Your task to perform on an android device: open a bookmark in the chrome app Image 0: 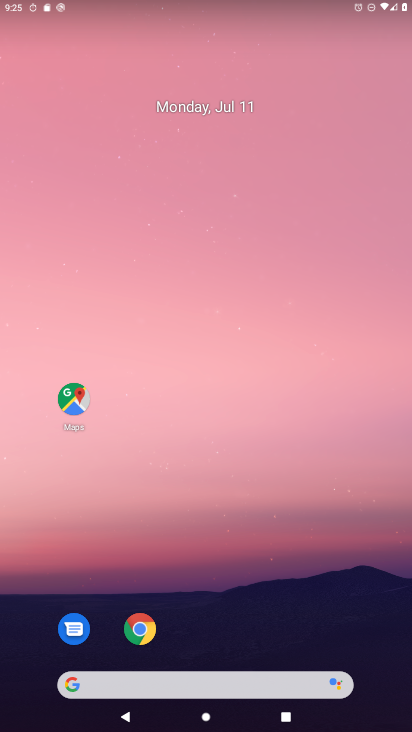
Step 0: click (140, 634)
Your task to perform on an android device: open a bookmark in the chrome app Image 1: 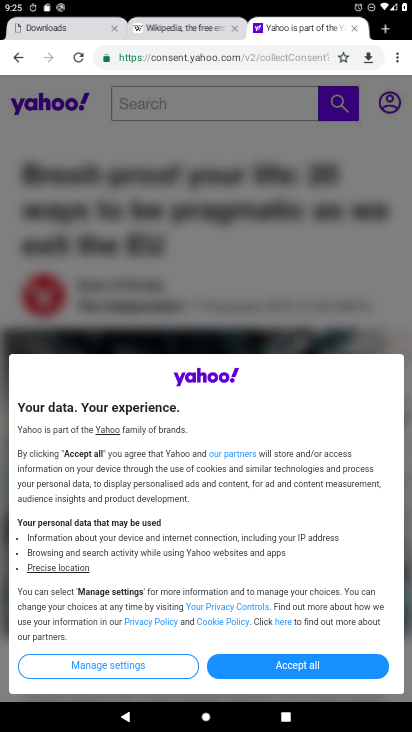
Step 1: click (393, 61)
Your task to perform on an android device: open a bookmark in the chrome app Image 2: 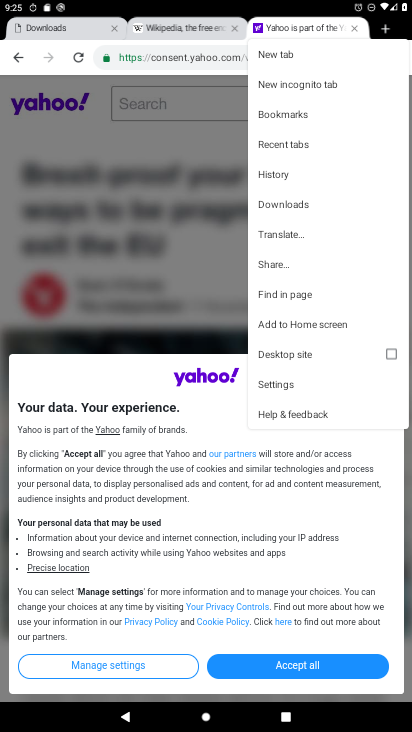
Step 2: click (293, 114)
Your task to perform on an android device: open a bookmark in the chrome app Image 3: 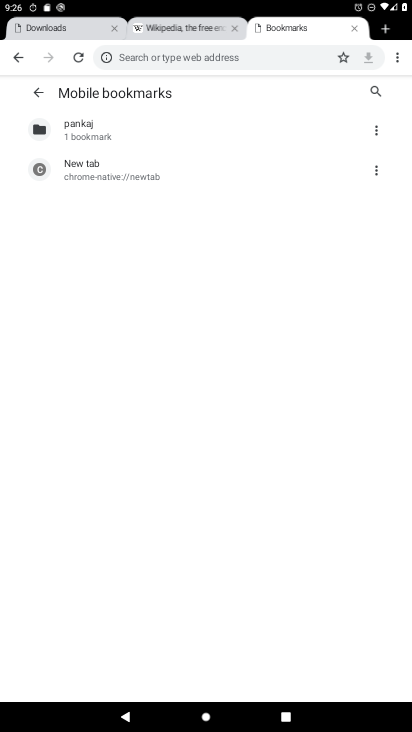
Step 3: click (392, 54)
Your task to perform on an android device: open a bookmark in the chrome app Image 4: 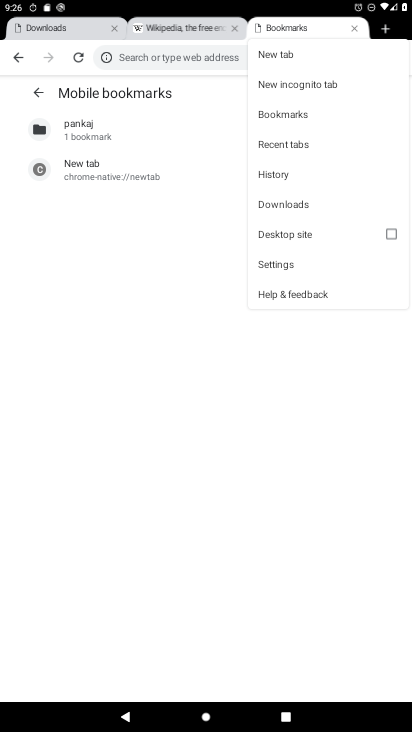
Step 4: click (285, 112)
Your task to perform on an android device: open a bookmark in the chrome app Image 5: 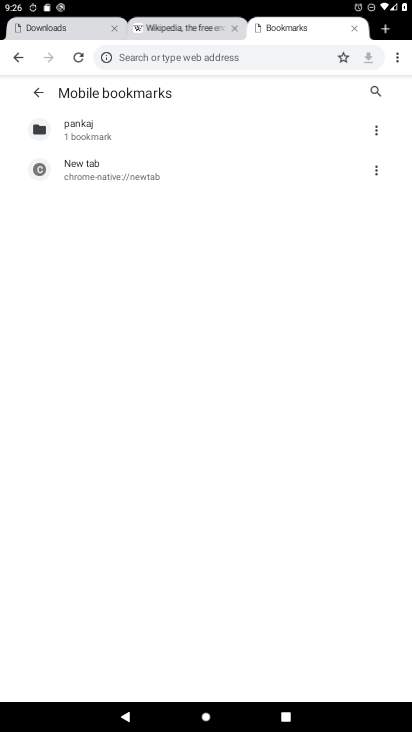
Step 5: task complete